Your task to perform on an android device: Go to Android settings Image 0: 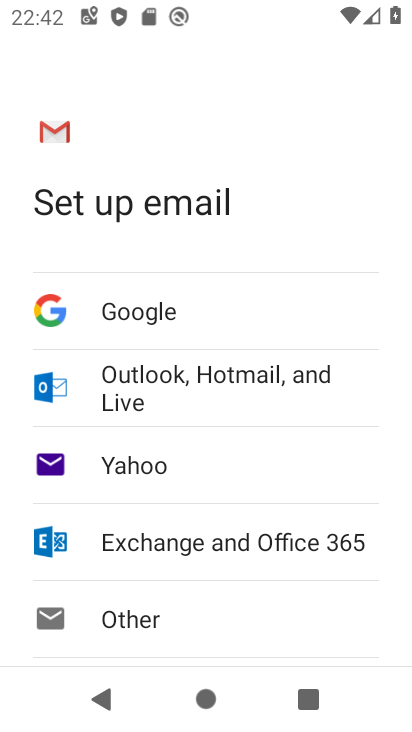
Step 0: press home button
Your task to perform on an android device: Go to Android settings Image 1: 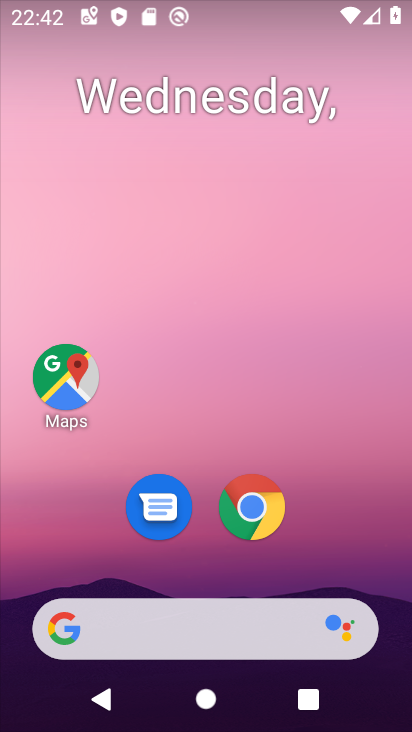
Step 1: drag from (328, 538) to (345, 189)
Your task to perform on an android device: Go to Android settings Image 2: 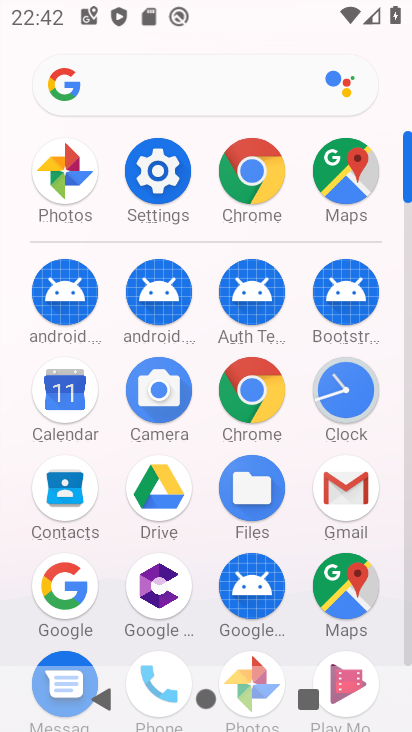
Step 2: click (138, 160)
Your task to perform on an android device: Go to Android settings Image 3: 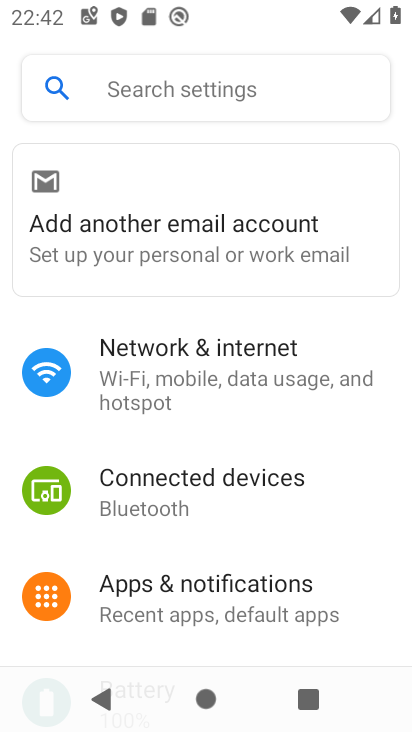
Step 3: task complete